Your task to perform on an android device: turn smart compose on in the gmail app Image 0: 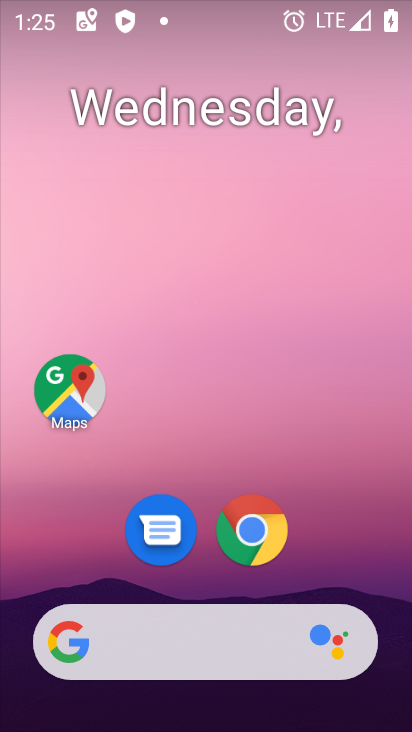
Step 0: drag from (385, 552) to (378, 189)
Your task to perform on an android device: turn smart compose on in the gmail app Image 1: 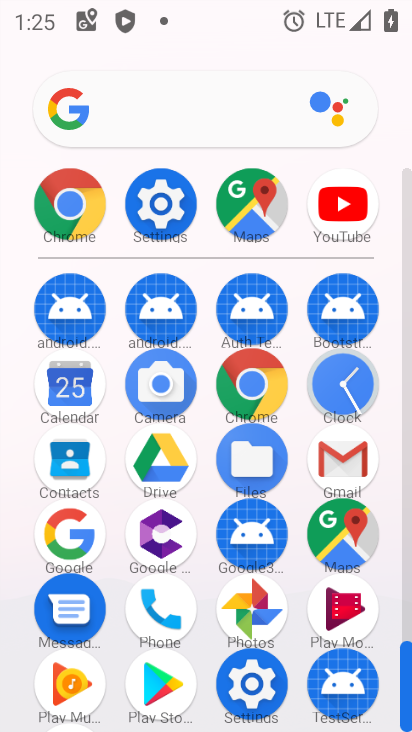
Step 1: click (343, 469)
Your task to perform on an android device: turn smart compose on in the gmail app Image 2: 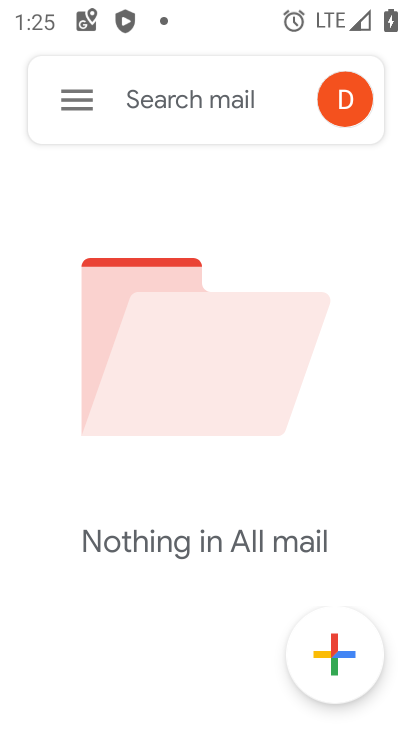
Step 2: drag from (66, 101) to (44, 294)
Your task to perform on an android device: turn smart compose on in the gmail app Image 3: 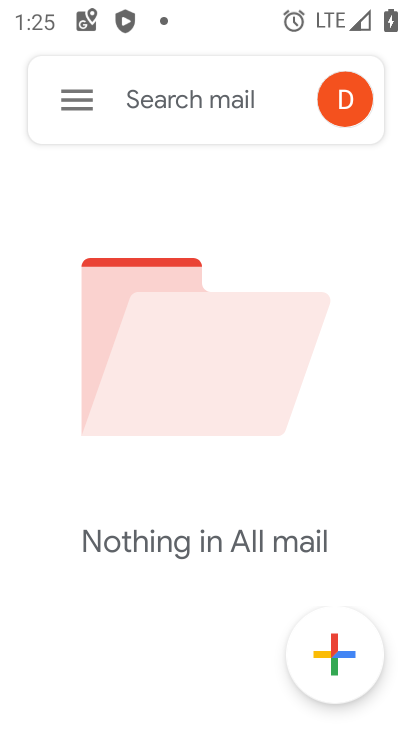
Step 3: click (74, 109)
Your task to perform on an android device: turn smart compose on in the gmail app Image 4: 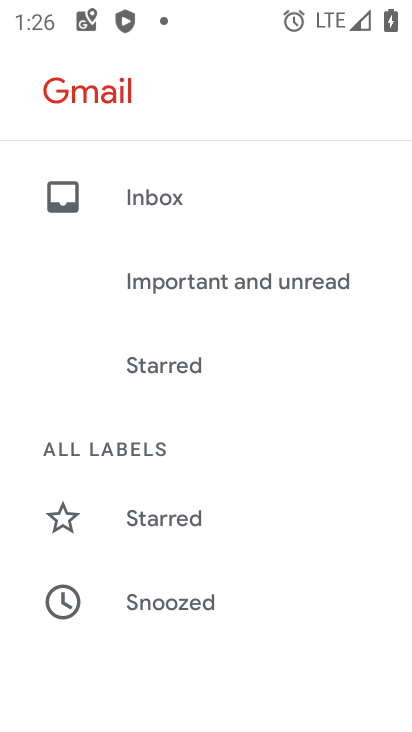
Step 4: drag from (211, 608) to (250, 116)
Your task to perform on an android device: turn smart compose on in the gmail app Image 5: 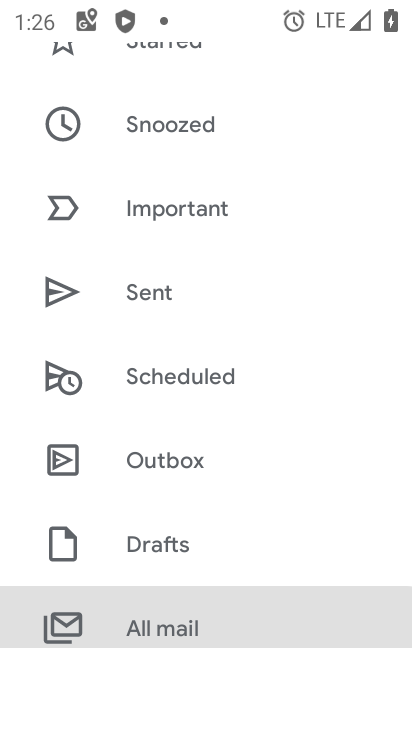
Step 5: drag from (205, 575) to (203, 249)
Your task to perform on an android device: turn smart compose on in the gmail app Image 6: 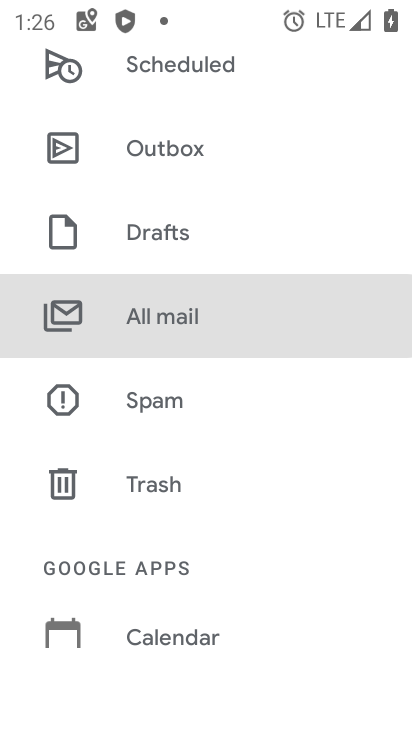
Step 6: drag from (194, 557) to (201, 187)
Your task to perform on an android device: turn smart compose on in the gmail app Image 7: 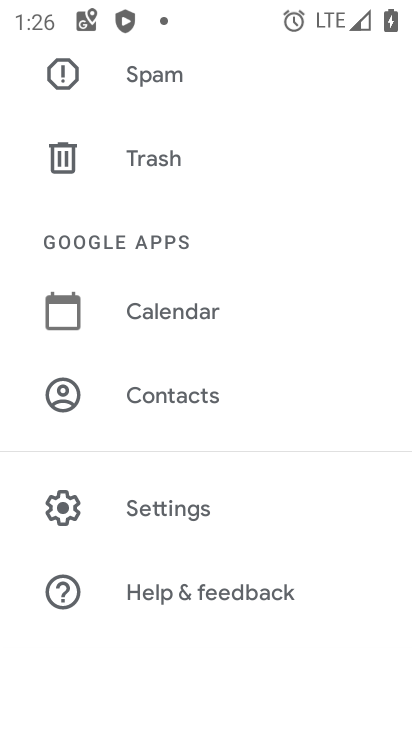
Step 7: drag from (217, 519) to (235, 314)
Your task to perform on an android device: turn smart compose on in the gmail app Image 8: 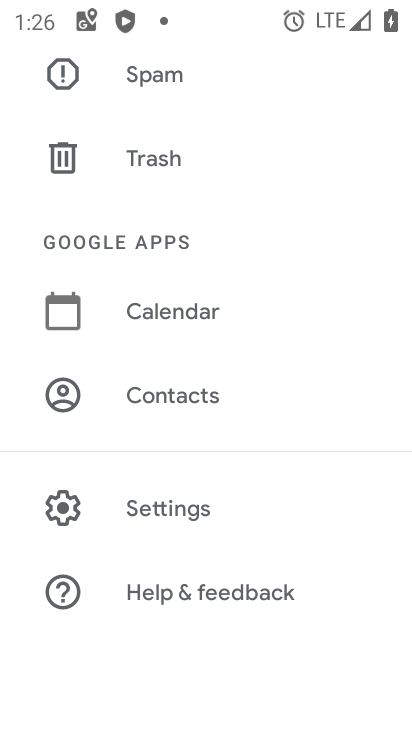
Step 8: click (204, 521)
Your task to perform on an android device: turn smart compose on in the gmail app Image 9: 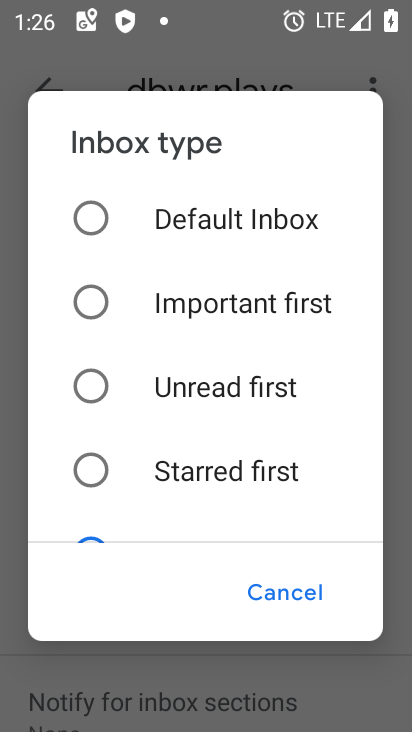
Step 9: click (301, 595)
Your task to perform on an android device: turn smart compose on in the gmail app Image 10: 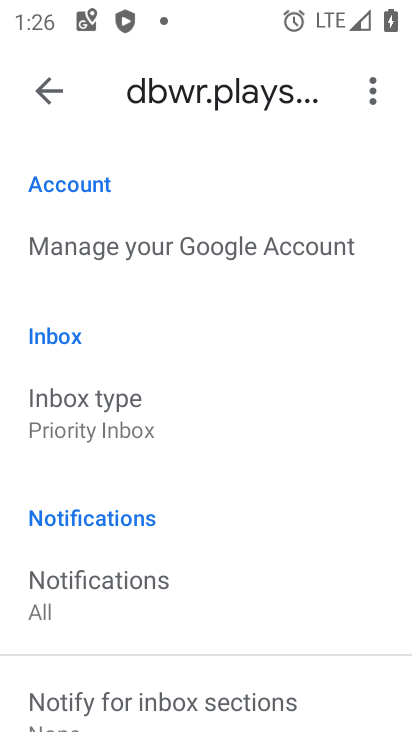
Step 10: task complete